Your task to perform on an android device: Go to Amazon Image 0: 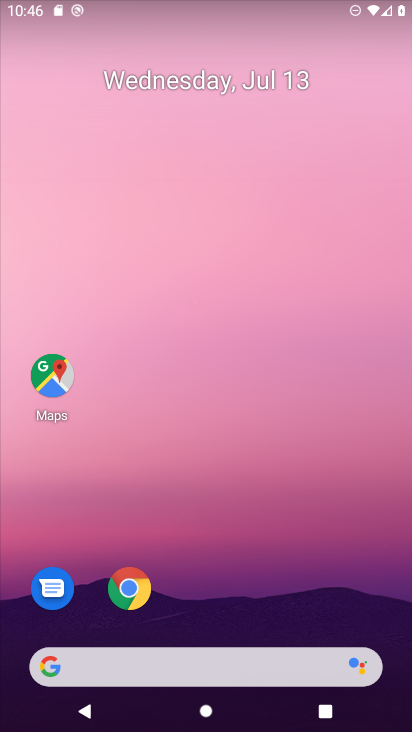
Step 0: click (141, 596)
Your task to perform on an android device: Go to Amazon Image 1: 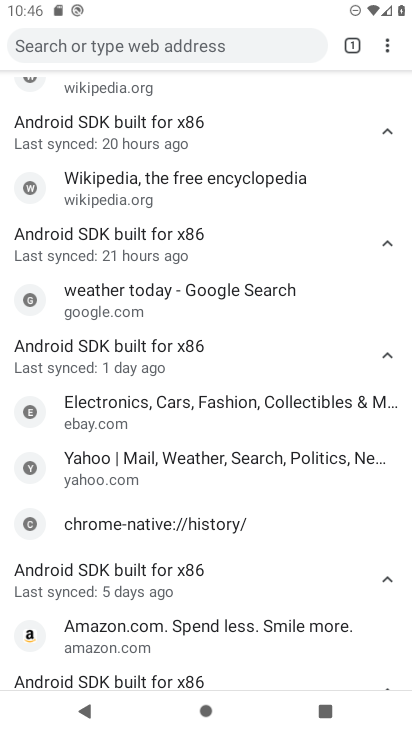
Step 1: click (164, 45)
Your task to perform on an android device: Go to Amazon Image 2: 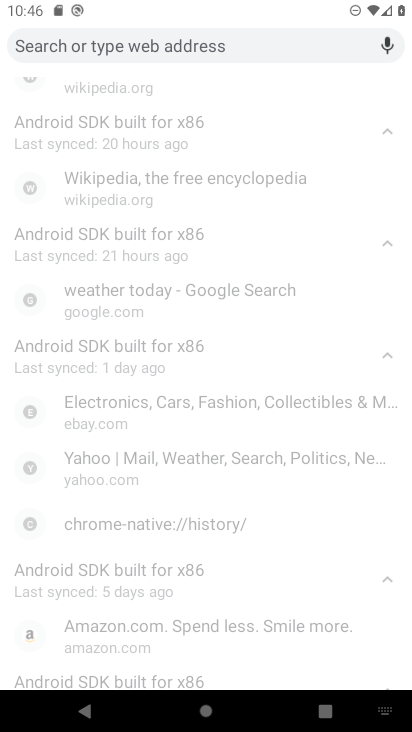
Step 2: type "Amazon"
Your task to perform on an android device: Go to Amazon Image 3: 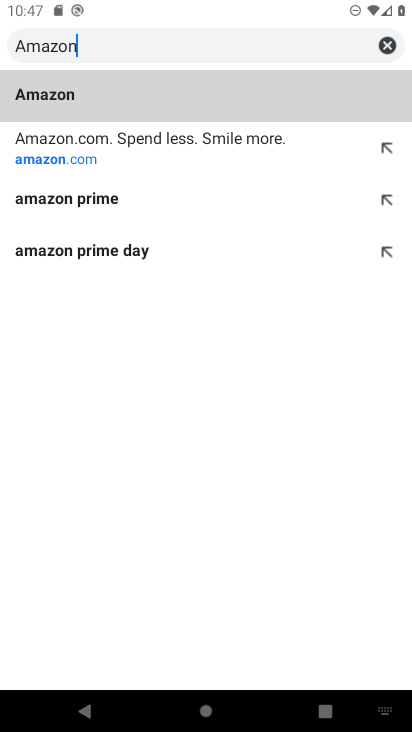
Step 3: click (109, 154)
Your task to perform on an android device: Go to Amazon Image 4: 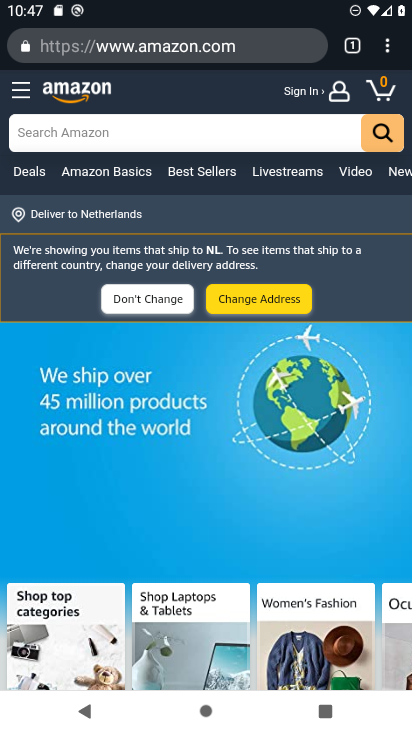
Step 4: task complete